Your task to perform on an android device: stop showing notifications on the lock screen Image 0: 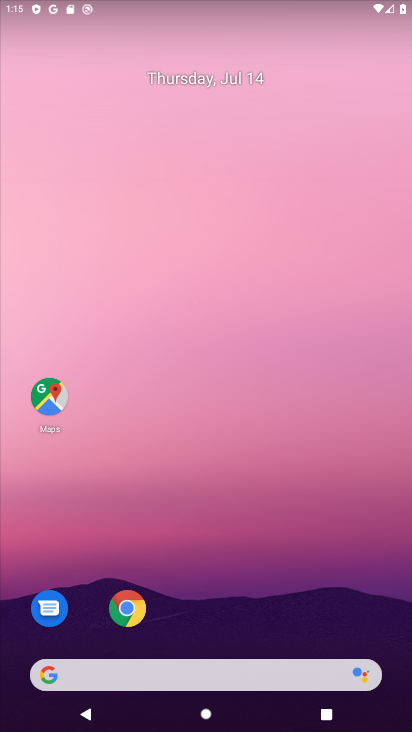
Step 0: drag from (254, 695) to (267, 28)
Your task to perform on an android device: stop showing notifications on the lock screen Image 1: 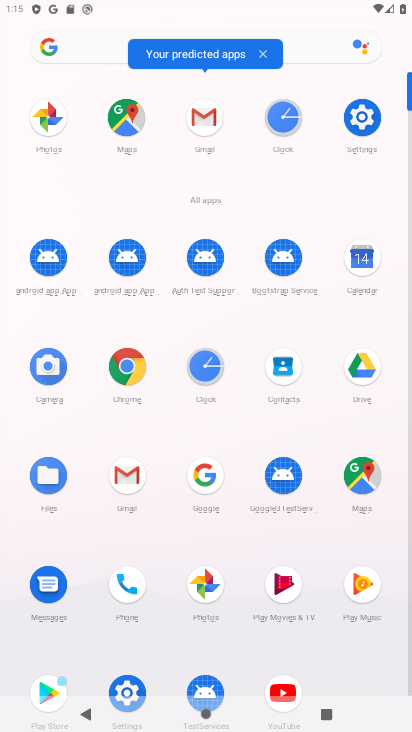
Step 1: click (355, 115)
Your task to perform on an android device: stop showing notifications on the lock screen Image 2: 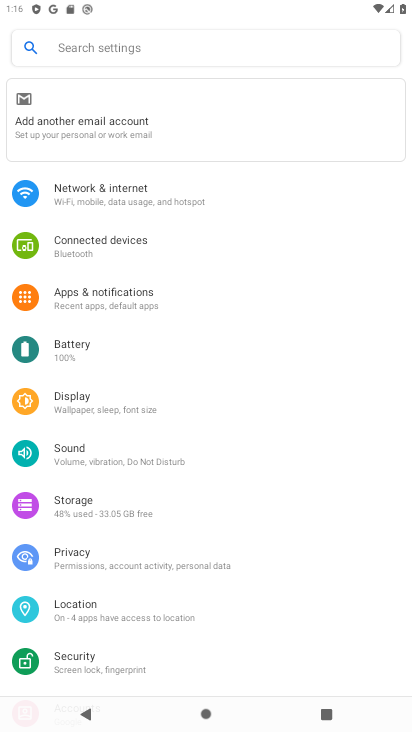
Step 2: click (90, 59)
Your task to perform on an android device: stop showing notifications on the lock screen Image 3: 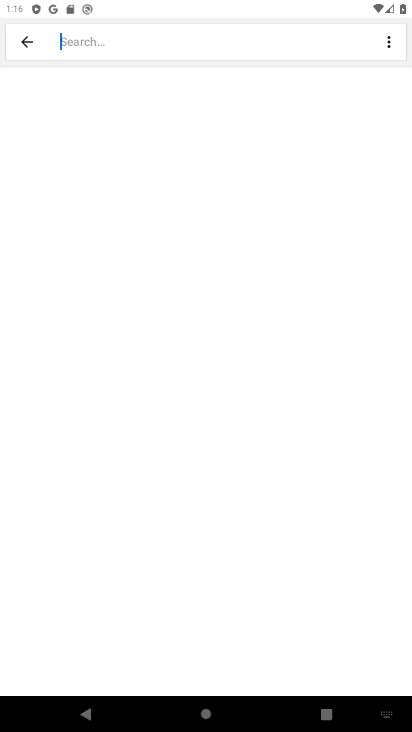
Step 3: click (392, 714)
Your task to perform on an android device: stop showing notifications on the lock screen Image 4: 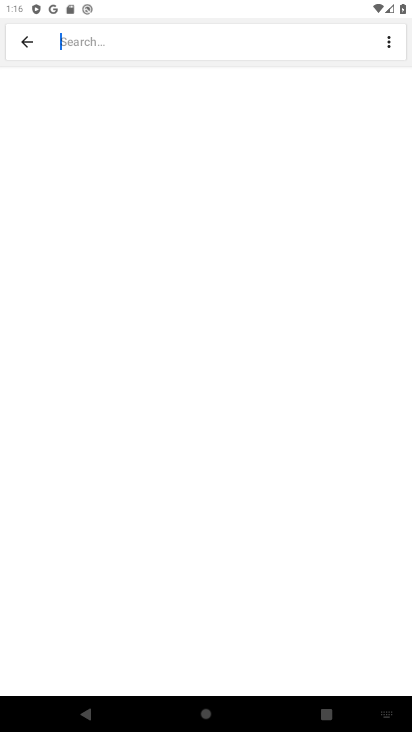
Step 4: drag from (376, 686) to (364, 622)
Your task to perform on an android device: stop showing notifications on the lock screen Image 5: 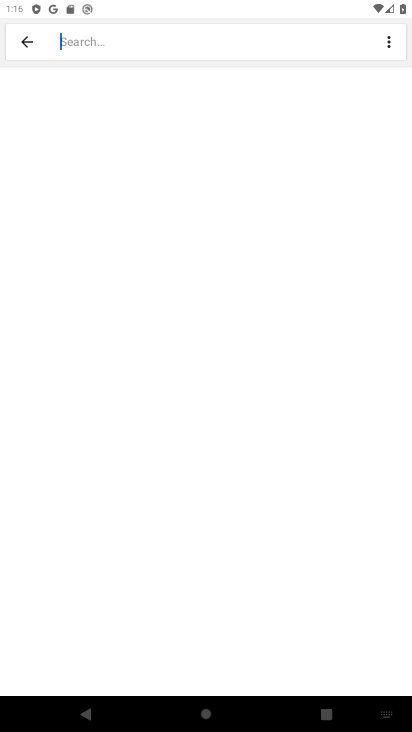
Step 5: drag from (375, 725) to (360, 648)
Your task to perform on an android device: stop showing notifications on the lock screen Image 6: 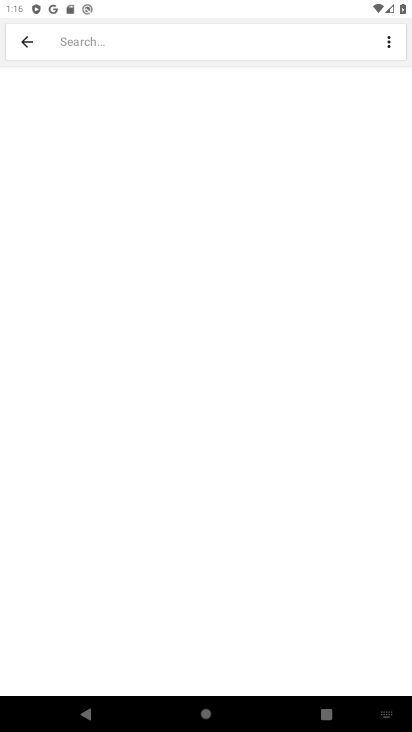
Step 6: click (397, 727)
Your task to perform on an android device: stop showing notifications on the lock screen Image 7: 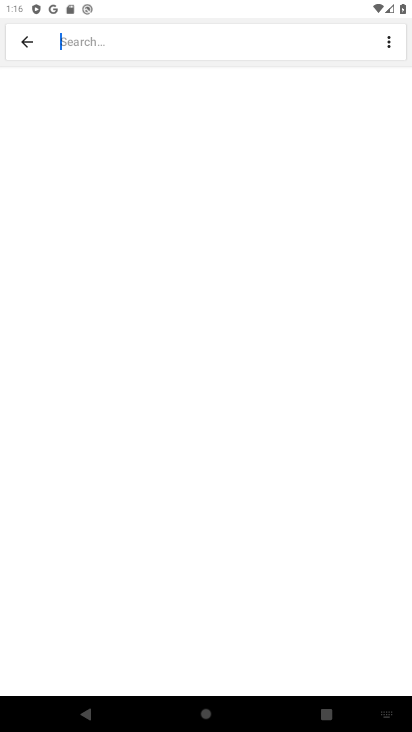
Step 7: click (386, 720)
Your task to perform on an android device: stop showing notifications on the lock screen Image 8: 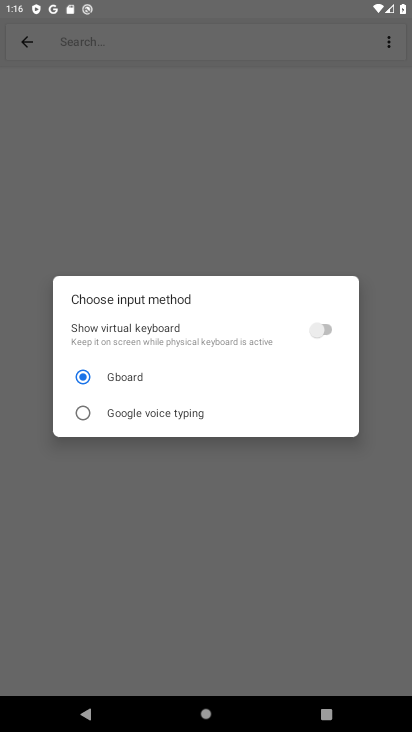
Step 8: click (317, 325)
Your task to perform on an android device: stop showing notifications on the lock screen Image 9: 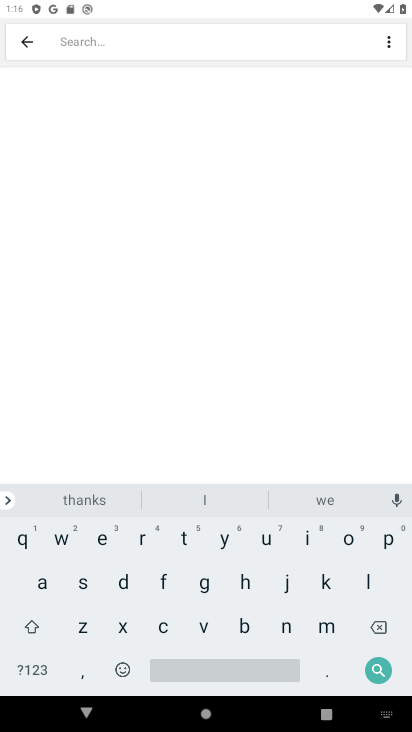
Step 9: click (283, 632)
Your task to perform on an android device: stop showing notifications on the lock screen Image 10: 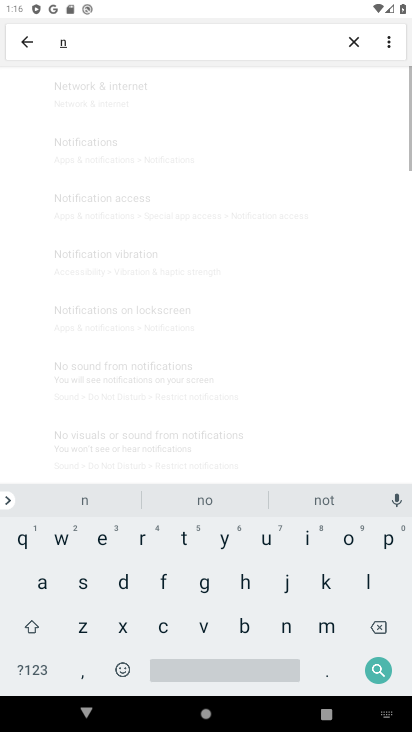
Step 10: click (347, 535)
Your task to perform on an android device: stop showing notifications on the lock screen Image 11: 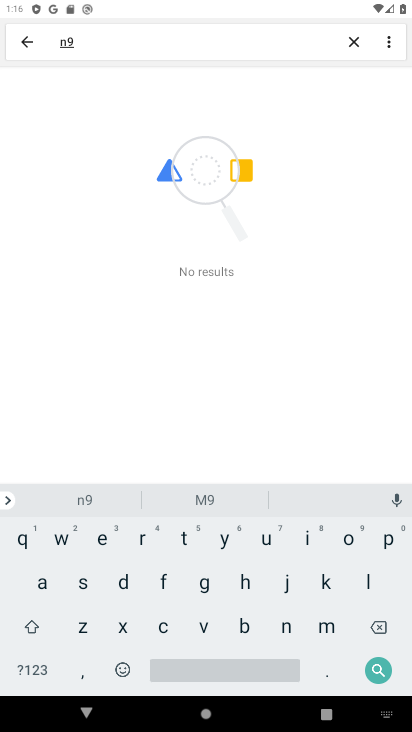
Step 11: click (385, 630)
Your task to perform on an android device: stop showing notifications on the lock screen Image 12: 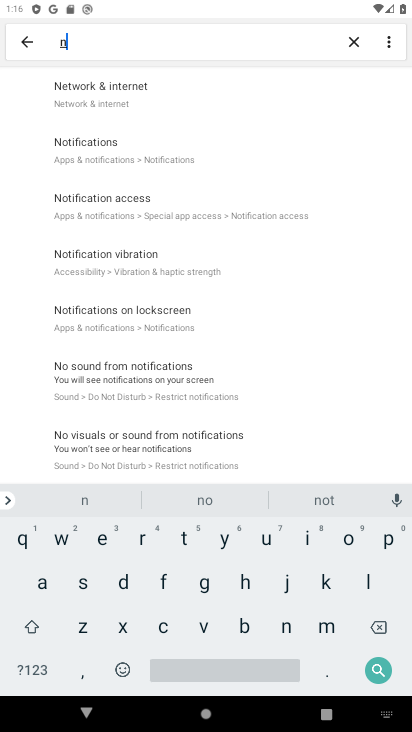
Step 12: click (348, 538)
Your task to perform on an android device: stop showing notifications on the lock screen Image 13: 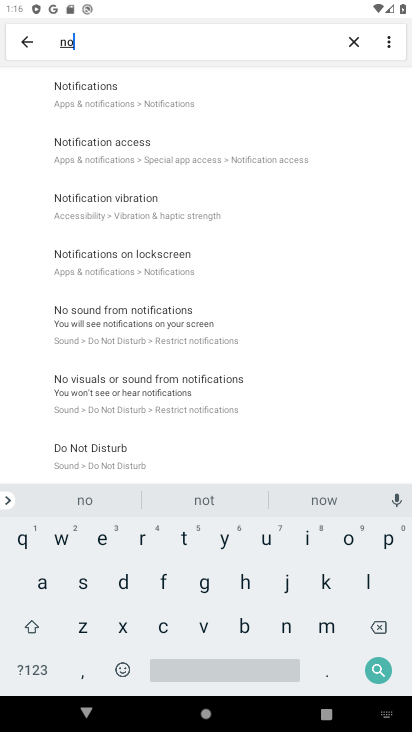
Step 13: click (85, 99)
Your task to perform on an android device: stop showing notifications on the lock screen Image 14: 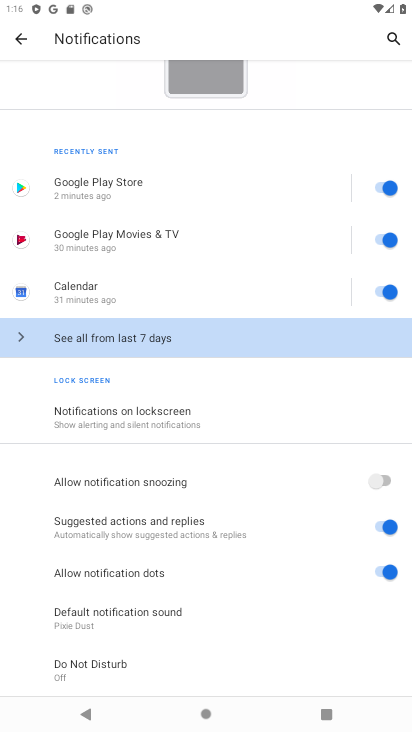
Step 14: click (104, 424)
Your task to perform on an android device: stop showing notifications on the lock screen Image 15: 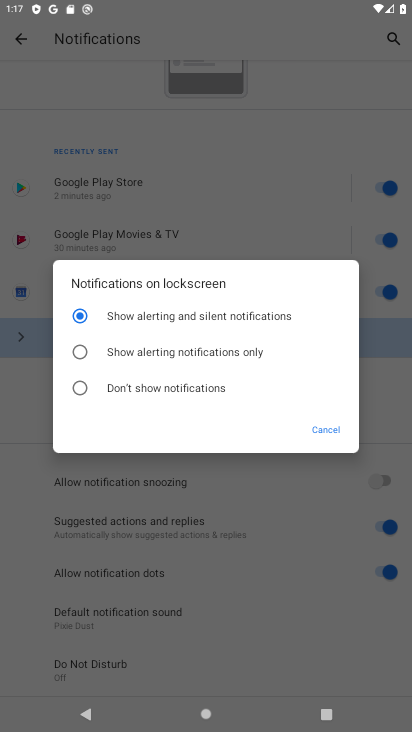
Step 15: click (109, 385)
Your task to perform on an android device: stop showing notifications on the lock screen Image 16: 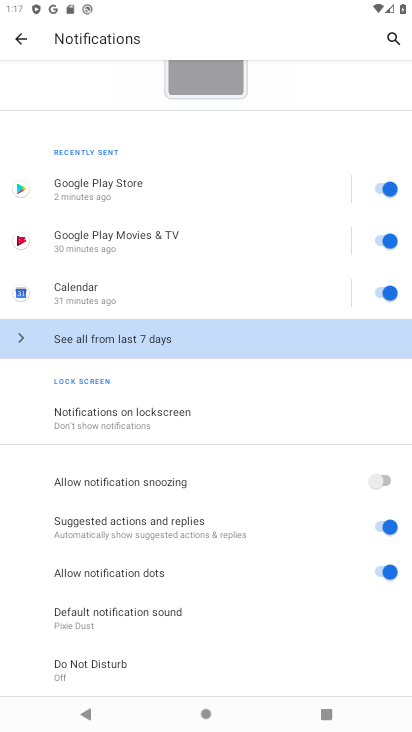
Step 16: task complete